Your task to perform on an android device: open app "Truecaller" (install if not already installed) Image 0: 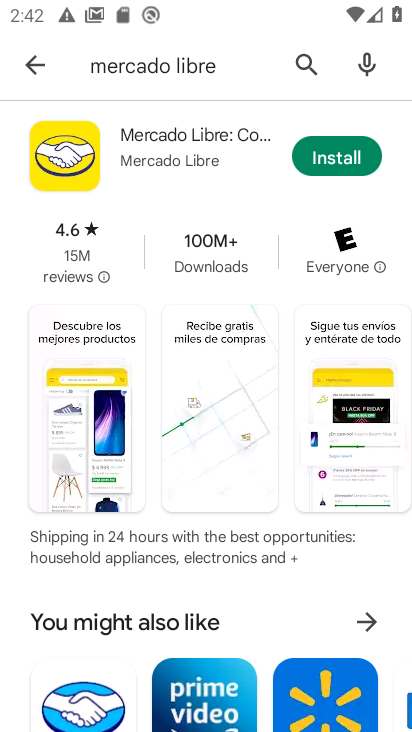
Step 0: click (317, 55)
Your task to perform on an android device: open app "Truecaller" (install if not already installed) Image 1: 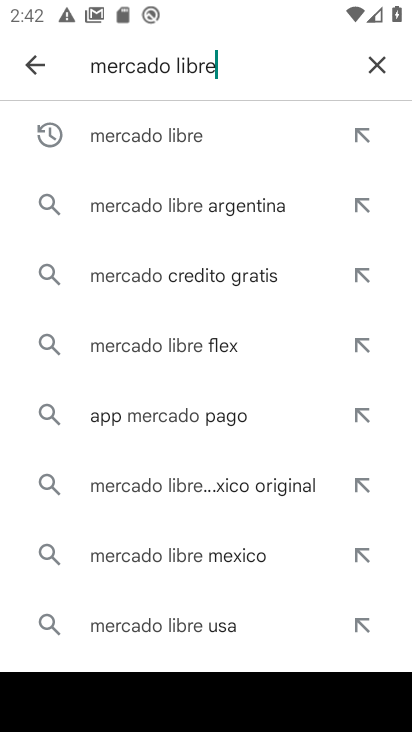
Step 1: click (369, 70)
Your task to perform on an android device: open app "Truecaller" (install if not already installed) Image 2: 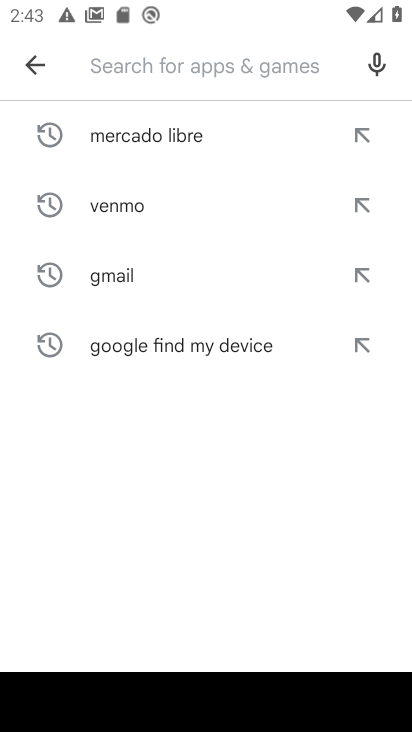
Step 2: type "Truecalle"
Your task to perform on an android device: open app "Truecaller" (install if not already installed) Image 3: 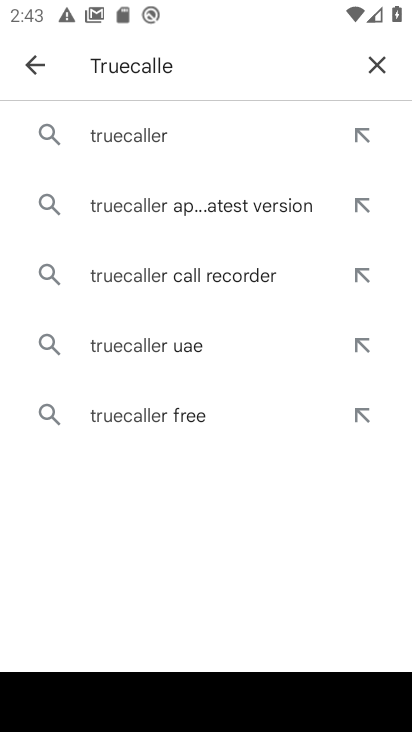
Step 3: click (133, 137)
Your task to perform on an android device: open app "Truecaller" (install if not already installed) Image 4: 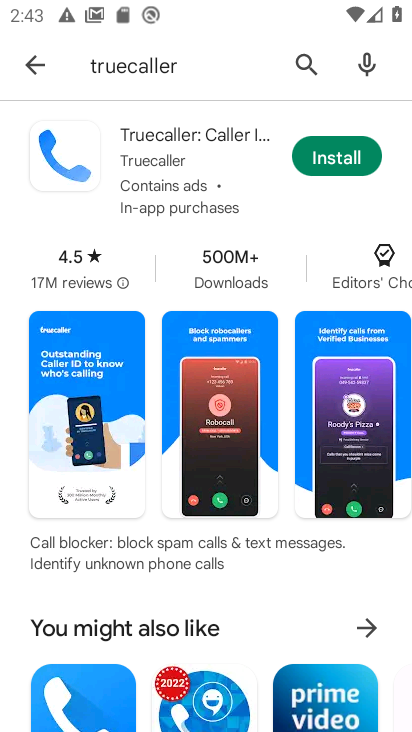
Step 4: click (336, 167)
Your task to perform on an android device: open app "Truecaller" (install if not already installed) Image 5: 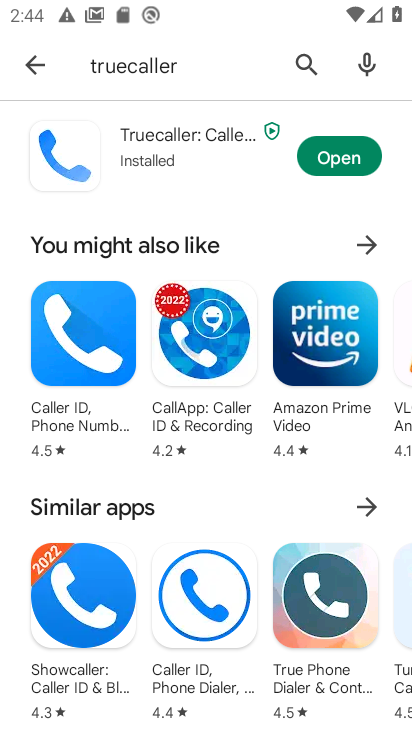
Step 5: click (354, 154)
Your task to perform on an android device: open app "Truecaller" (install if not already installed) Image 6: 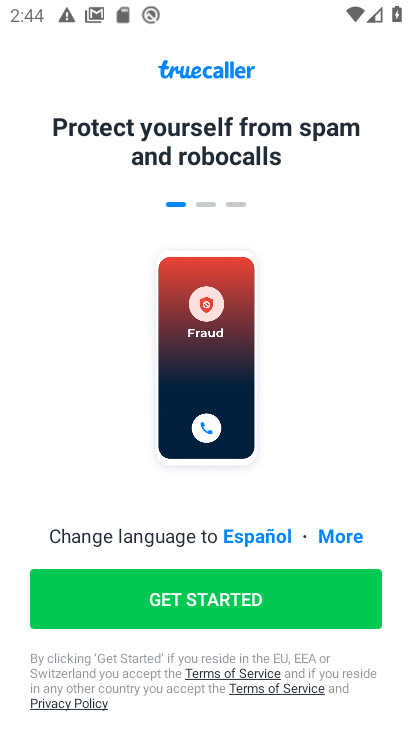
Step 6: task complete